Your task to perform on an android device: Open accessibility settings Image 0: 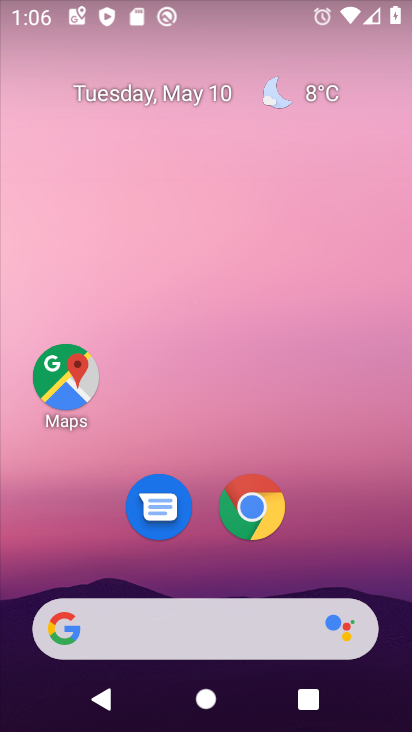
Step 0: drag from (217, 722) to (218, 257)
Your task to perform on an android device: Open accessibility settings Image 1: 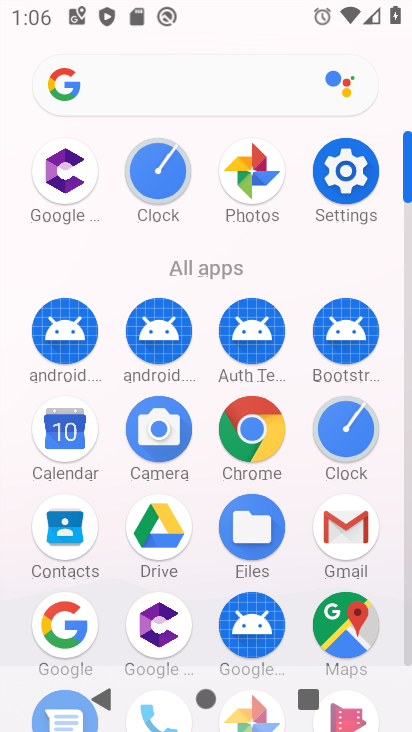
Step 1: click (340, 170)
Your task to perform on an android device: Open accessibility settings Image 2: 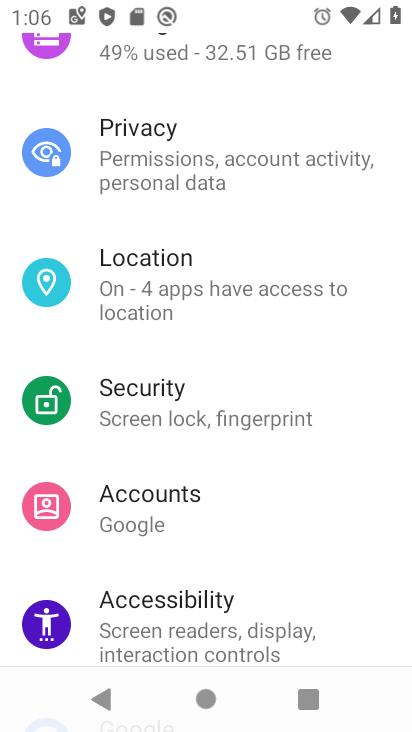
Step 2: click (176, 622)
Your task to perform on an android device: Open accessibility settings Image 3: 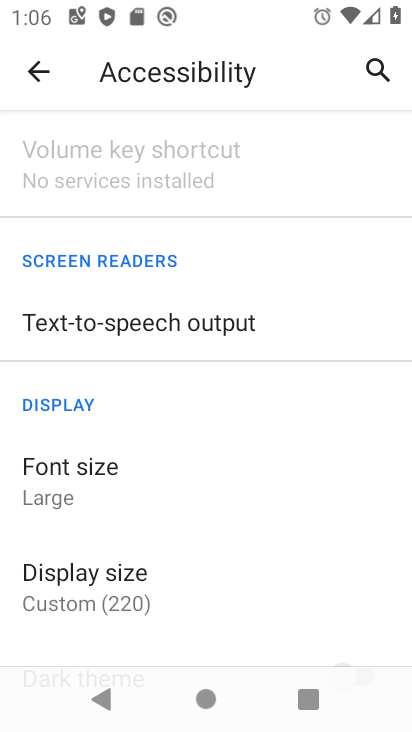
Step 3: task complete